Your task to perform on an android device: When is my next appointment? Image 0: 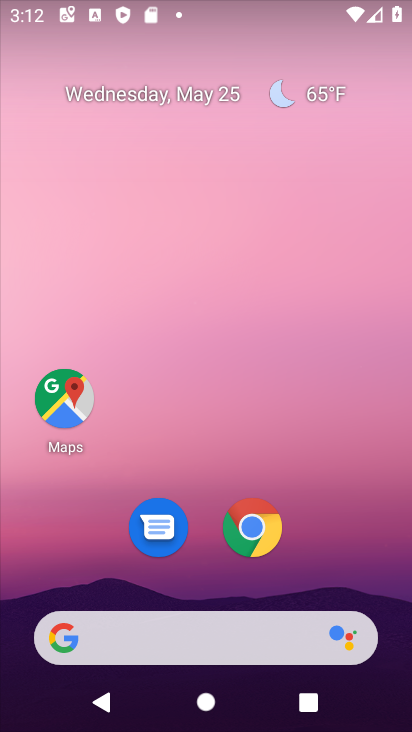
Step 0: drag from (153, 520) to (162, 56)
Your task to perform on an android device: When is my next appointment? Image 1: 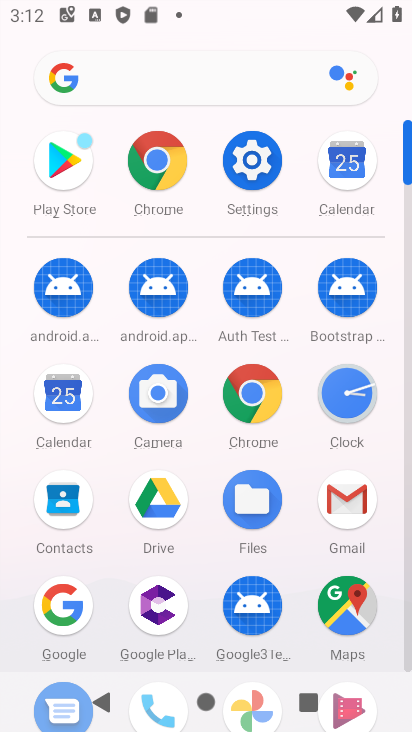
Step 1: click (50, 401)
Your task to perform on an android device: When is my next appointment? Image 2: 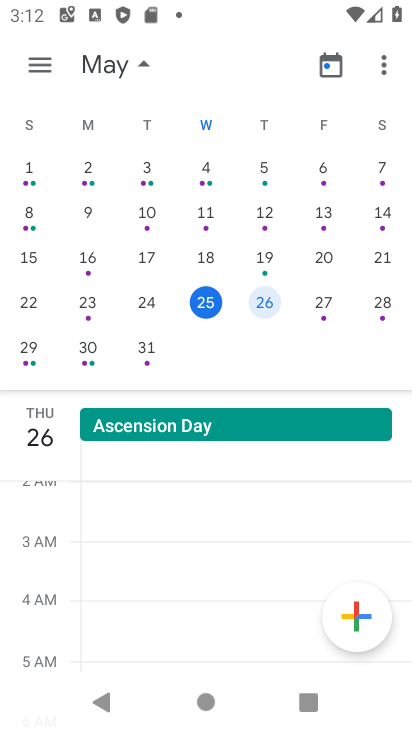
Step 2: click (216, 293)
Your task to perform on an android device: When is my next appointment? Image 3: 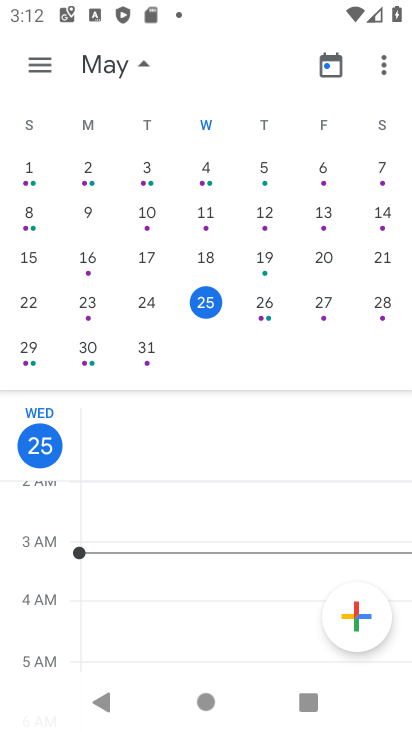
Step 3: task complete